Your task to perform on an android device: change keyboard looks Image 0: 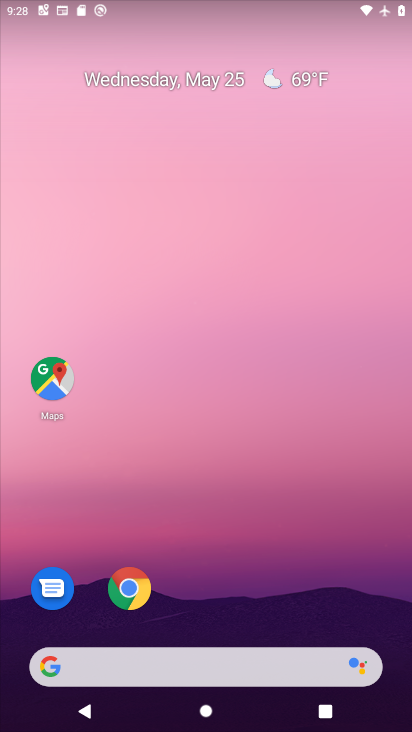
Step 0: drag from (361, 606) to (367, 99)
Your task to perform on an android device: change keyboard looks Image 1: 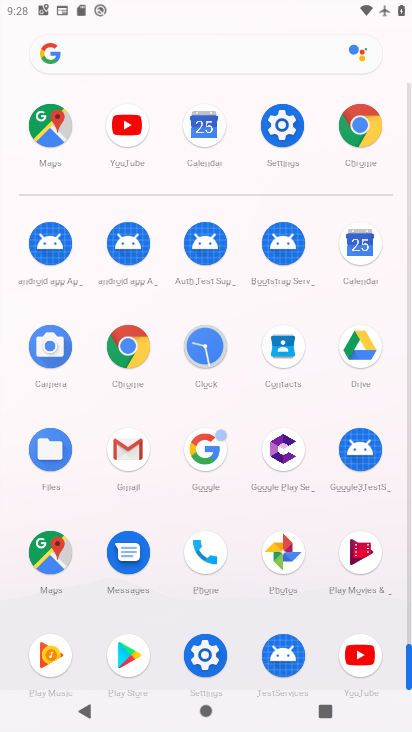
Step 1: click (290, 142)
Your task to perform on an android device: change keyboard looks Image 2: 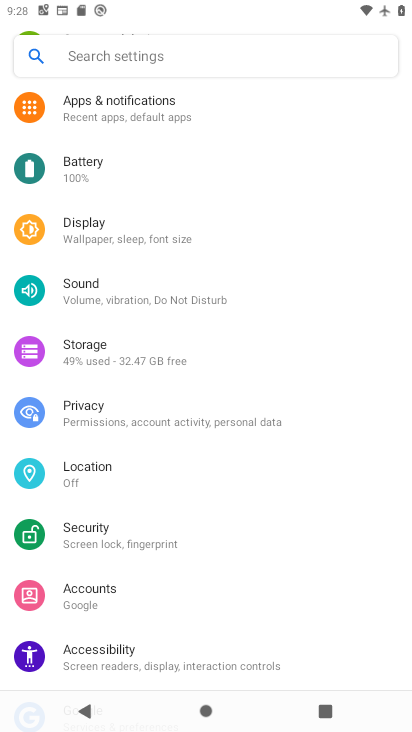
Step 2: drag from (364, 577) to (371, 505)
Your task to perform on an android device: change keyboard looks Image 3: 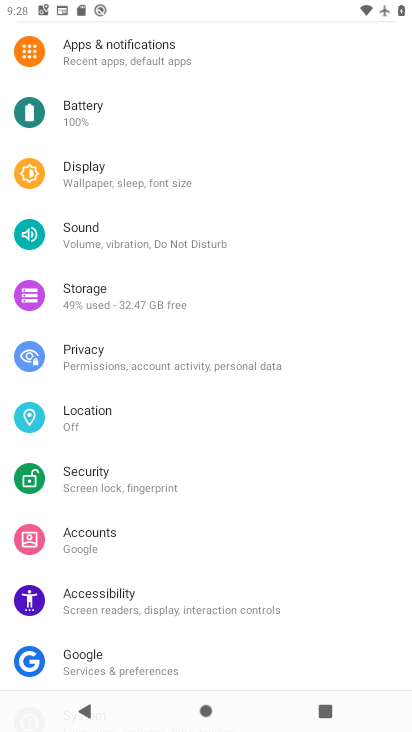
Step 3: drag from (341, 329) to (341, 398)
Your task to perform on an android device: change keyboard looks Image 4: 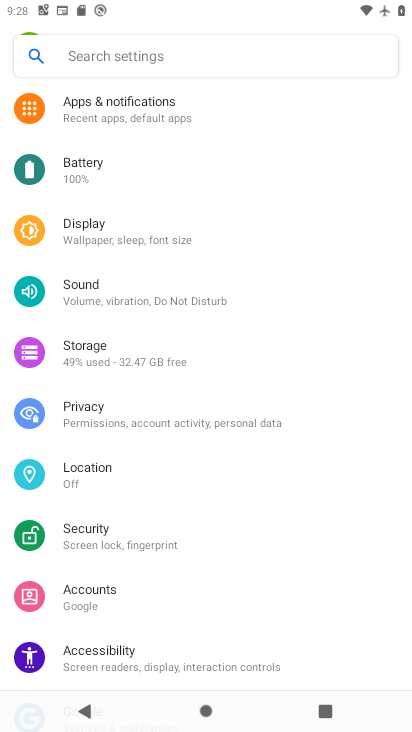
Step 4: drag from (320, 261) to (317, 388)
Your task to perform on an android device: change keyboard looks Image 5: 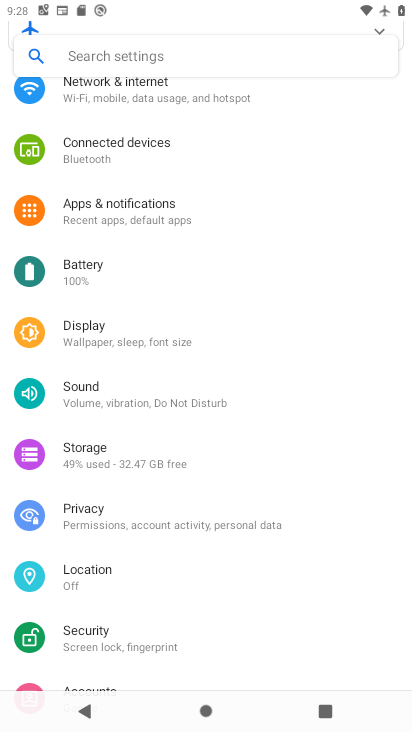
Step 5: drag from (324, 254) to (332, 350)
Your task to perform on an android device: change keyboard looks Image 6: 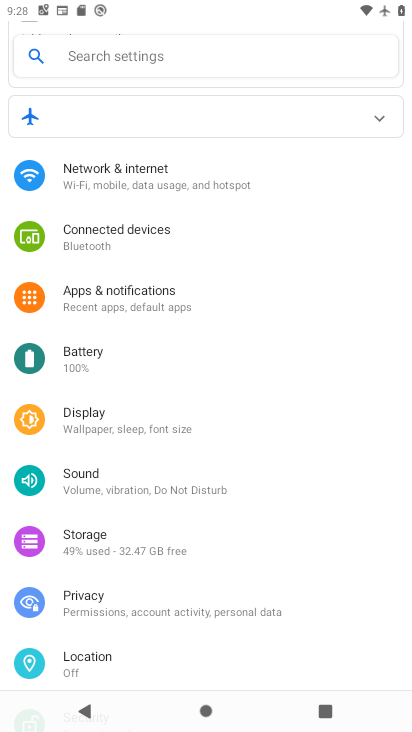
Step 6: drag from (329, 227) to (343, 332)
Your task to perform on an android device: change keyboard looks Image 7: 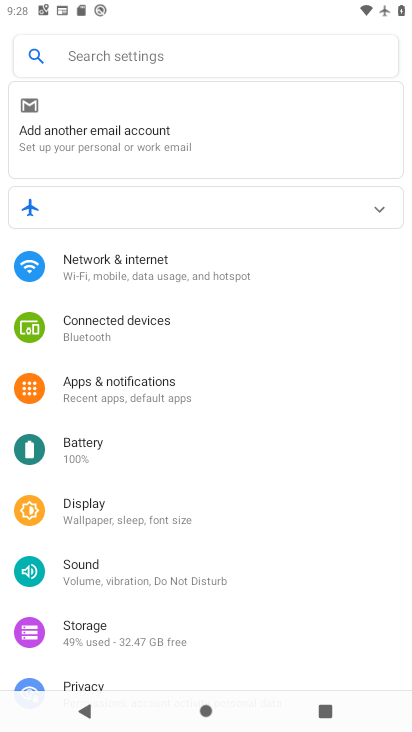
Step 7: drag from (327, 258) to (336, 342)
Your task to perform on an android device: change keyboard looks Image 8: 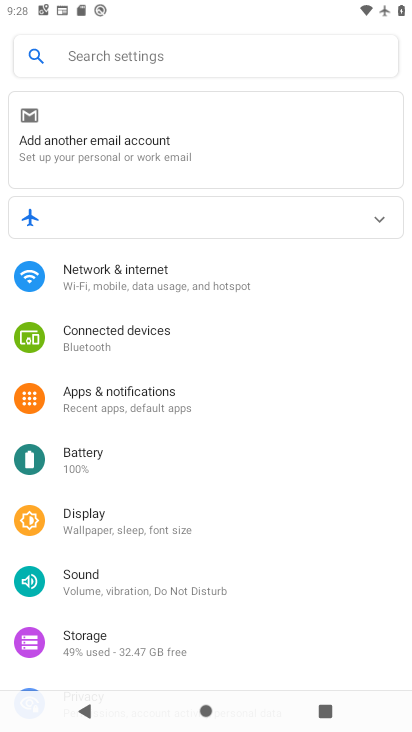
Step 8: drag from (355, 491) to (352, 385)
Your task to perform on an android device: change keyboard looks Image 9: 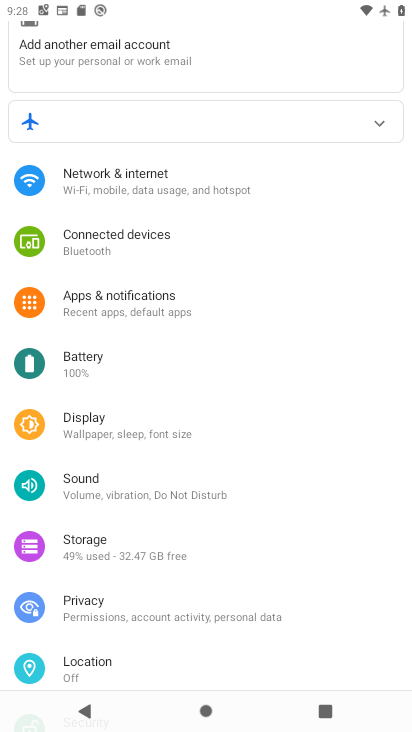
Step 9: drag from (357, 533) to (356, 436)
Your task to perform on an android device: change keyboard looks Image 10: 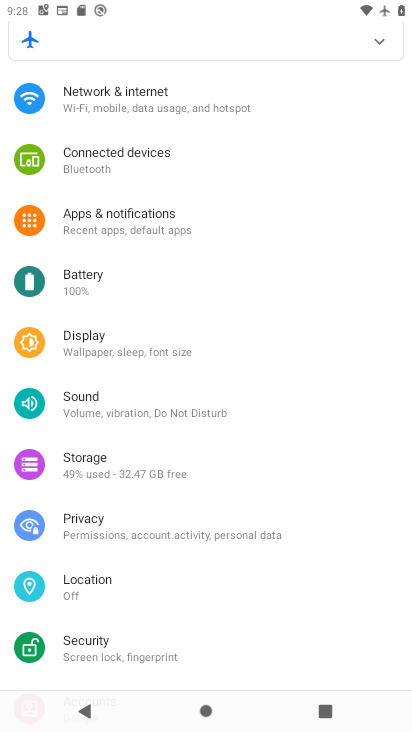
Step 10: drag from (339, 553) to (346, 469)
Your task to perform on an android device: change keyboard looks Image 11: 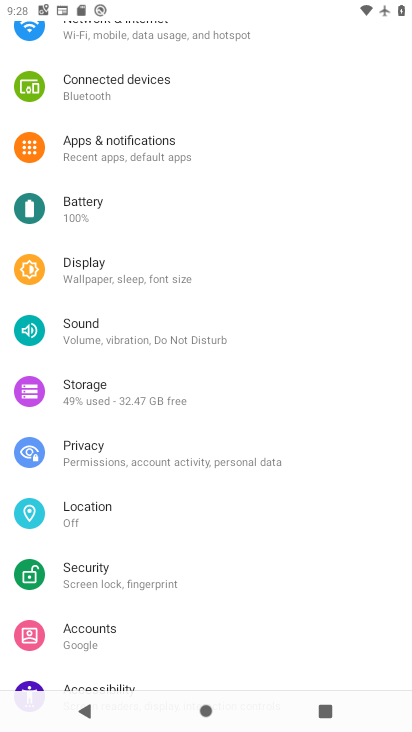
Step 11: drag from (355, 570) to (355, 463)
Your task to perform on an android device: change keyboard looks Image 12: 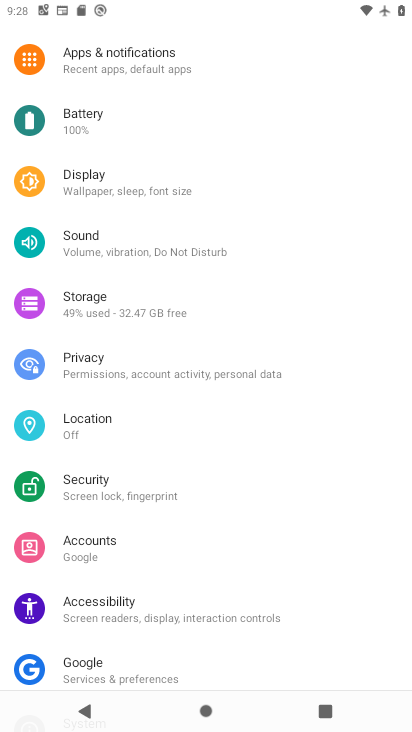
Step 12: drag from (354, 576) to (357, 498)
Your task to perform on an android device: change keyboard looks Image 13: 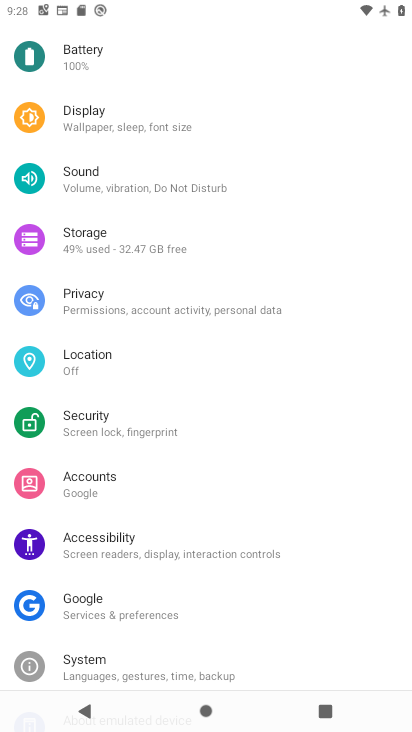
Step 13: drag from (356, 584) to (348, 495)
Your task to perform on an android device: change keyboard looks Image 14: 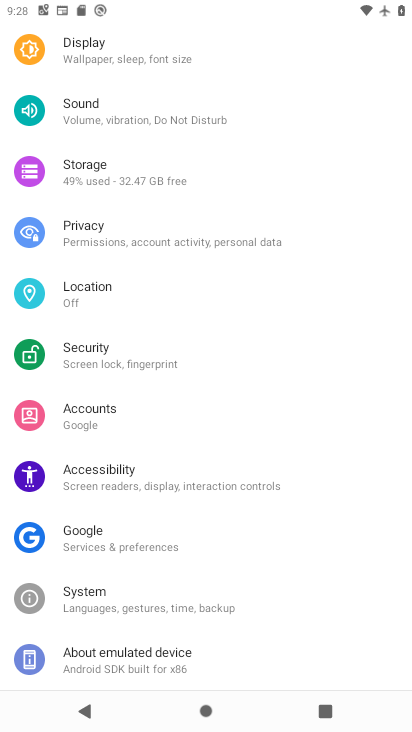
Step 14: drag from (340, 610) to (335, 489)
Your task to perform on an android device: change keyboard looks Image 15: 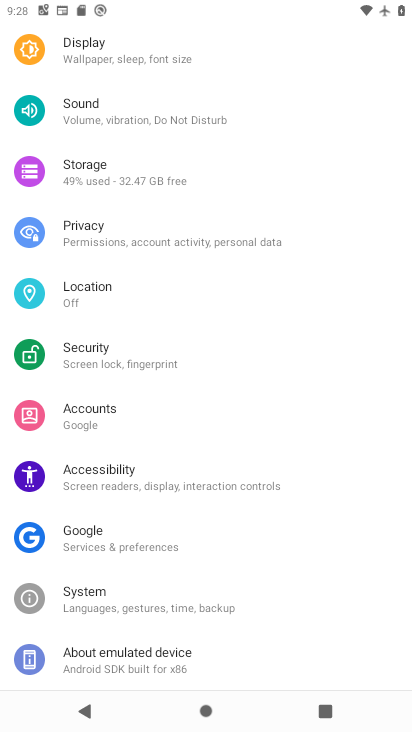
Step 15: click (258, 593)
Your task to perform on an android device: change keyboard looks Image 16: 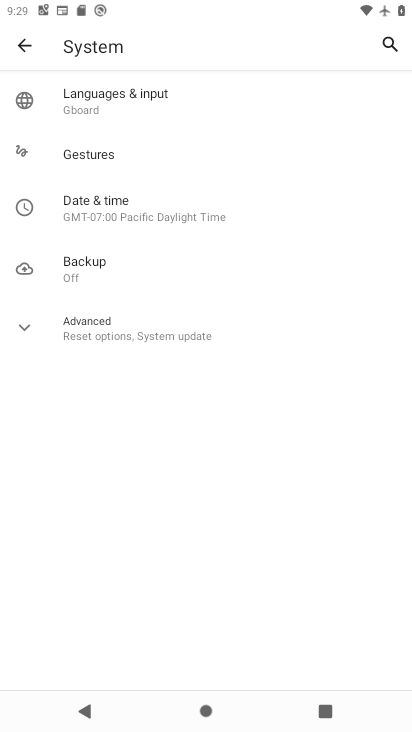
Step 16: click (124, 104)
Your task to perform on an android device: change keyboard looks Image 17: 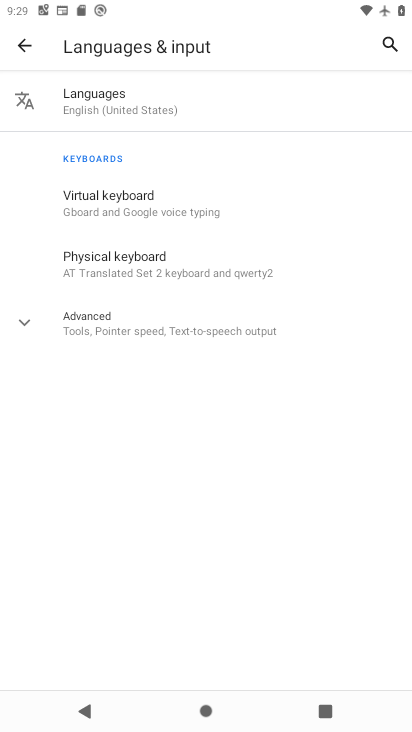
Step 17: click (151, 209)
Your task to perform on an android device: change keyboard looks Image 18: 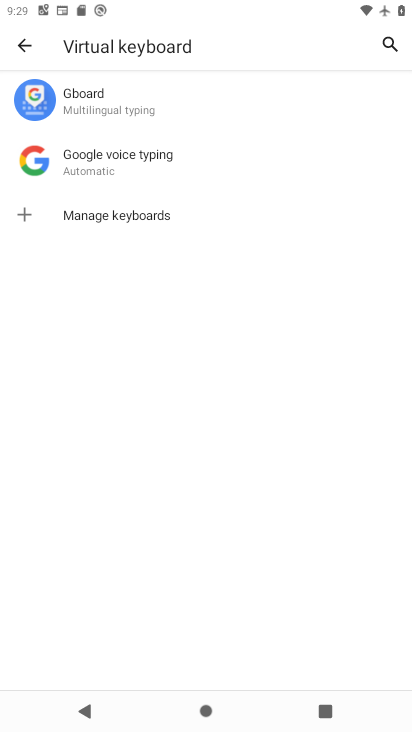
Step 18: click (153, 97)
Your task to perform on an android device: change keyboard looks Image 19: 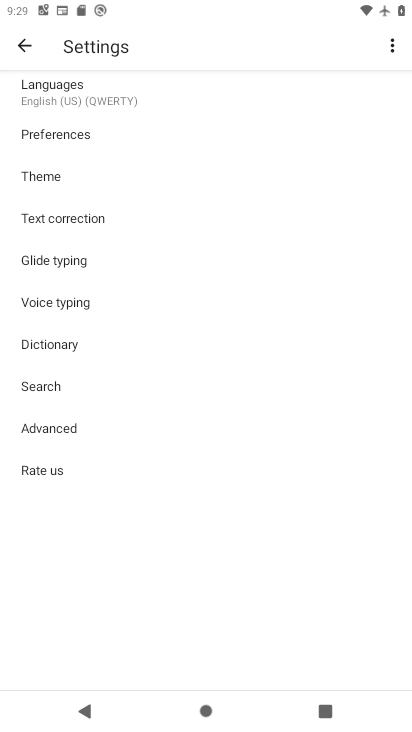
Step 19: click (86, 175)
Your task to perform on an android device: change keyboard looks Image 20: 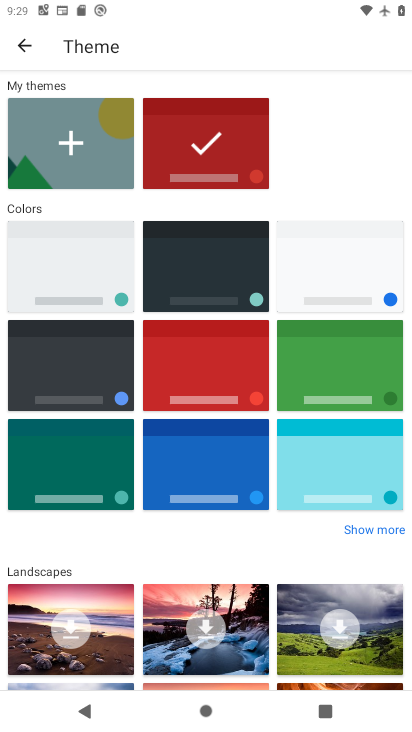
Step 20: click (338, 376)
Your task to perform on an android device: change keyboard looks Image 21: 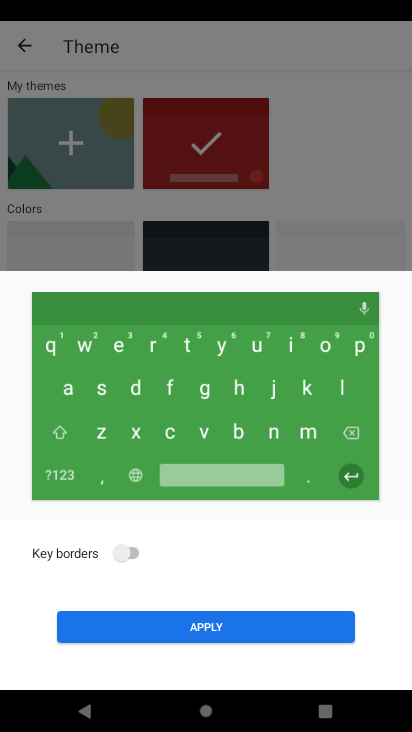
Step 21: click (293, 637)
Your task to perform on an android device: change keyboard looks Image 22: 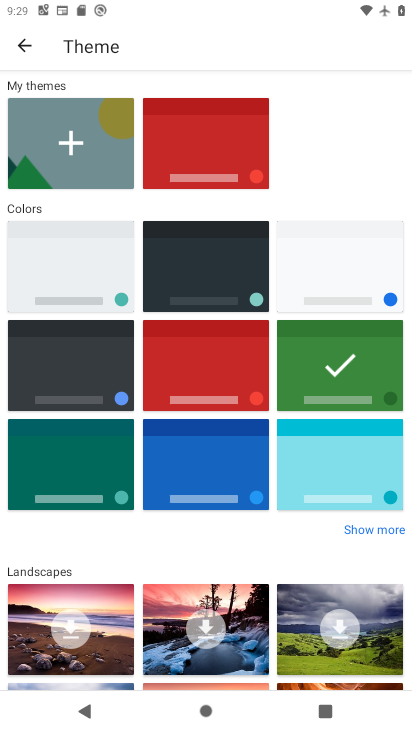
Step 22: task complete